Your task to perform on an android device: turn off javascript in the chrome app Image 0: 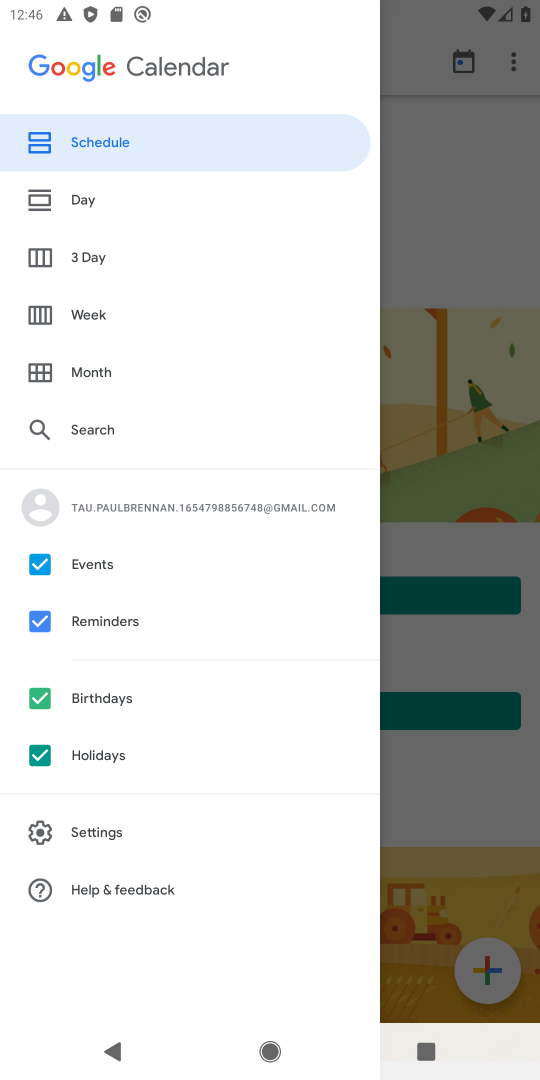
Step 0: press home button
Your task to perform on an android device: turn off javascript in the chrome app Image 1: 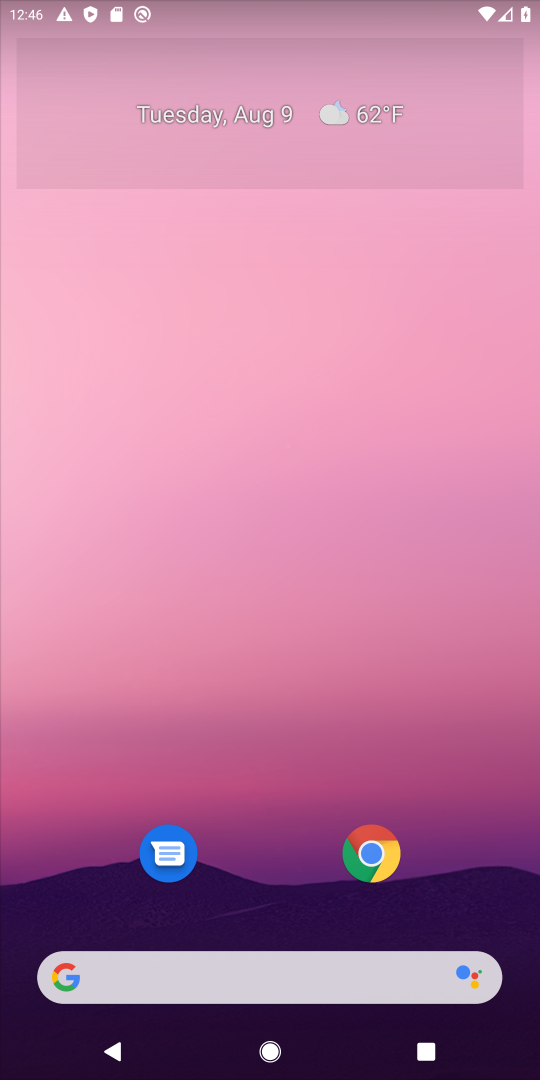
Step 1: click (381, 854)
Your task to perform on an android device: turn off javascript in the chrome app Image 2: 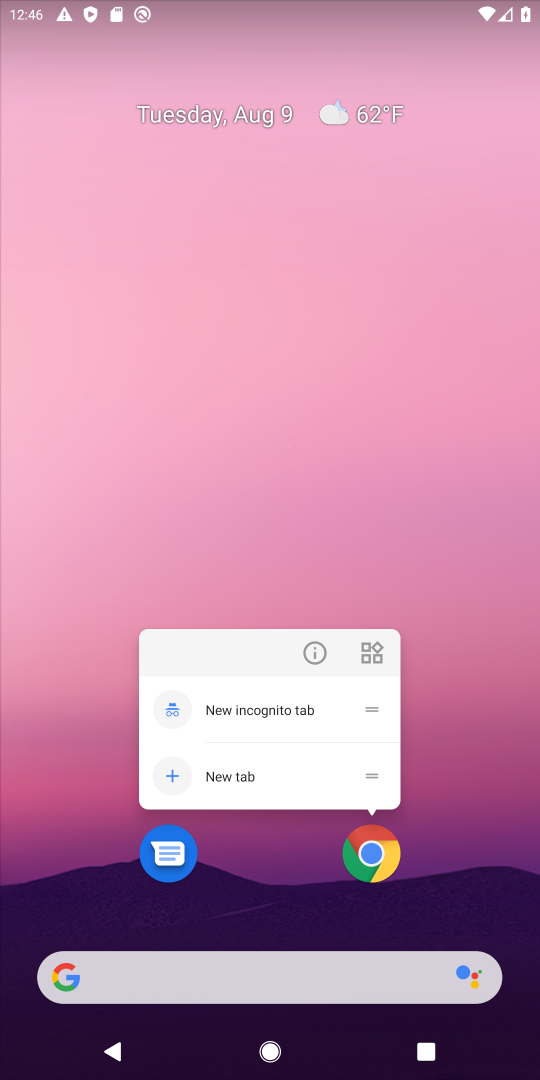
Step 2: click (375, 840)
Your task to perform on an android device: turn off javascript in the chrome app Image 3: 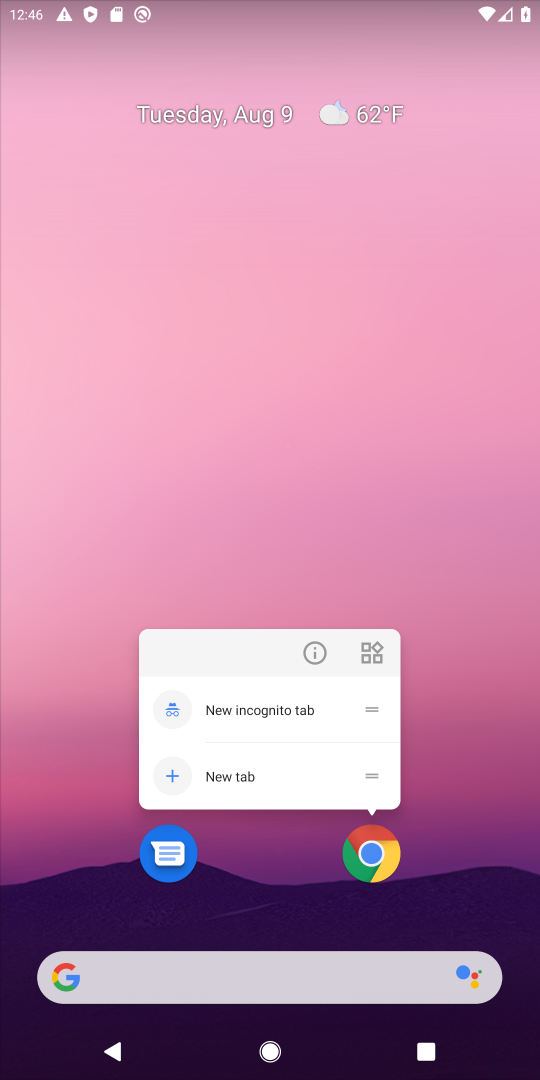
Step 3: click (369, 841)
Your task to perform on an android device: turn off javascript in the chrome app Image 4: 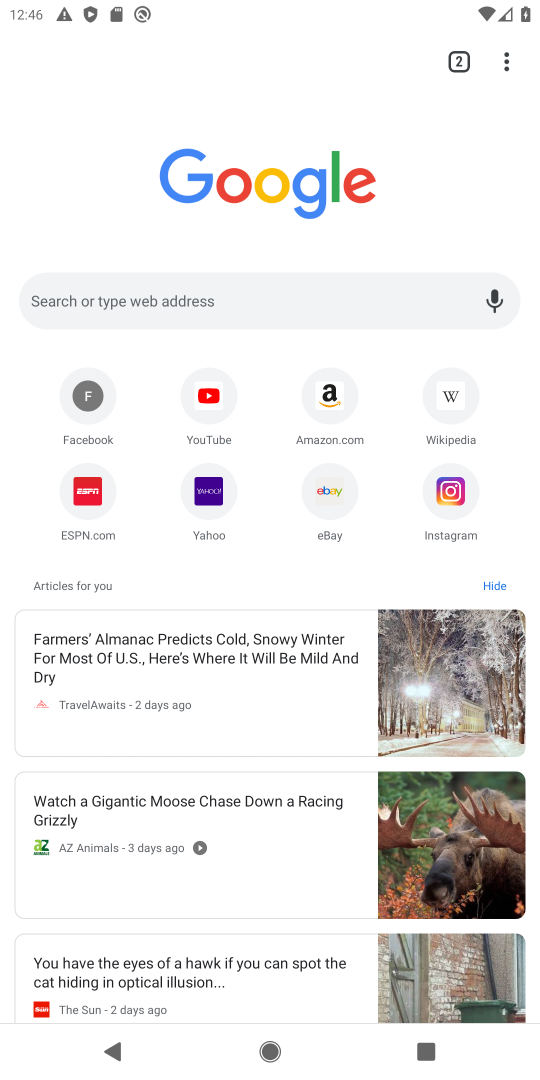
Step 4: drag from (506, 65) to (320, 588)
Your task to perform on an android device: turn off javascript in the chrome app Image 5: 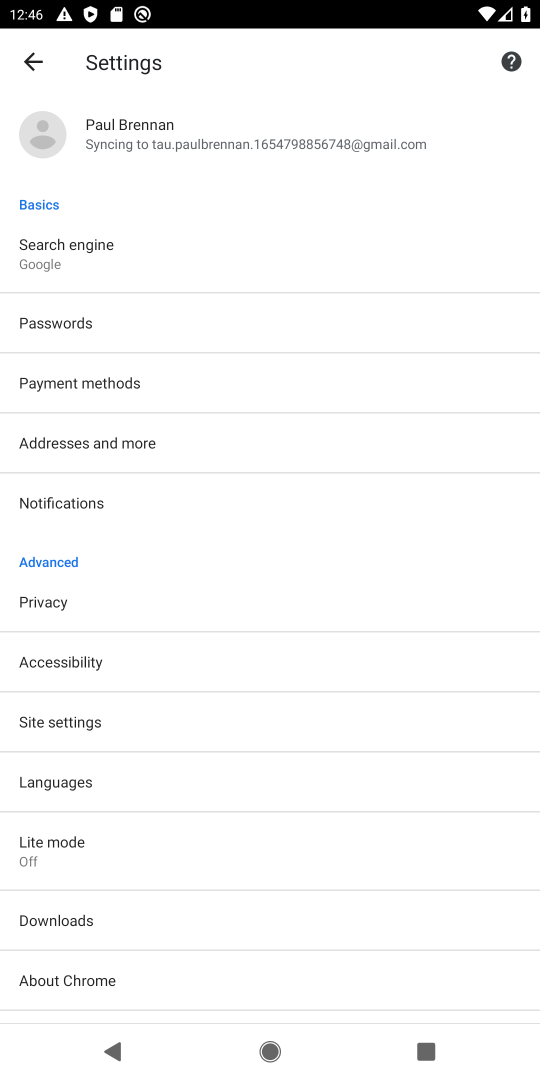
Step 5: click (71, 719)
Your task to perform on an android device: turn off javascript in the chrome app Image 6: 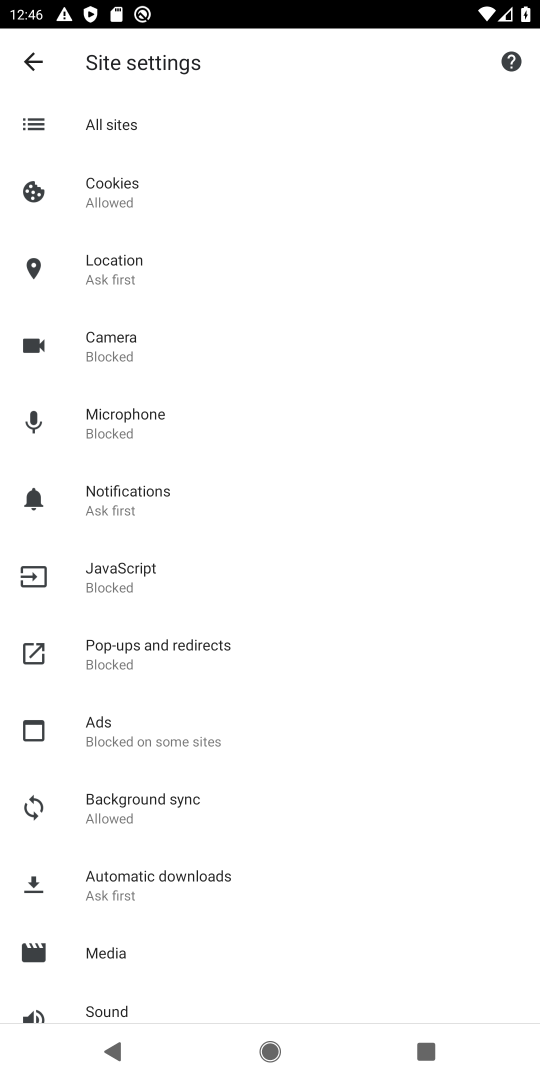
Step 6: click (124, 566)
Your task to perform on an android device: turn off javascript in the chrome app Image 7: 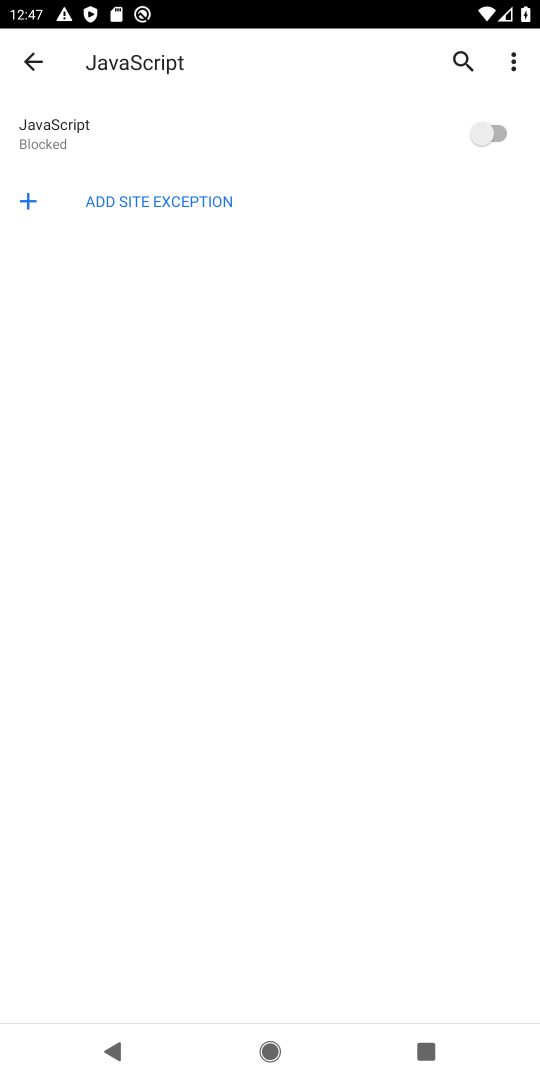
Step 7: task complete